Your task to perform on an android device: change the clock display to show seconds Image 0: 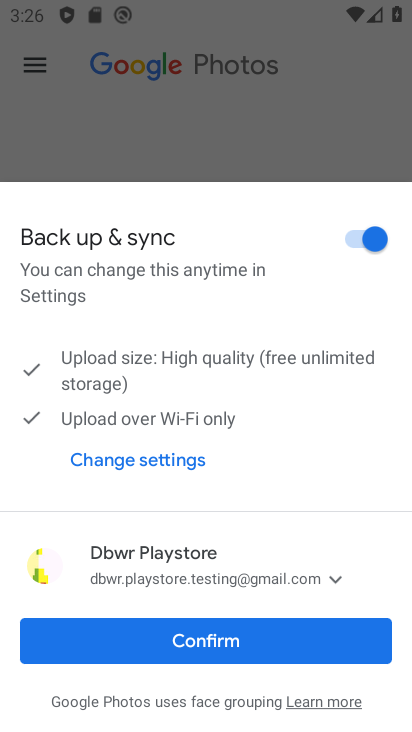
Step 0: press home button
Your task to perform on an android device: change the clock display to show seconds Image 1: 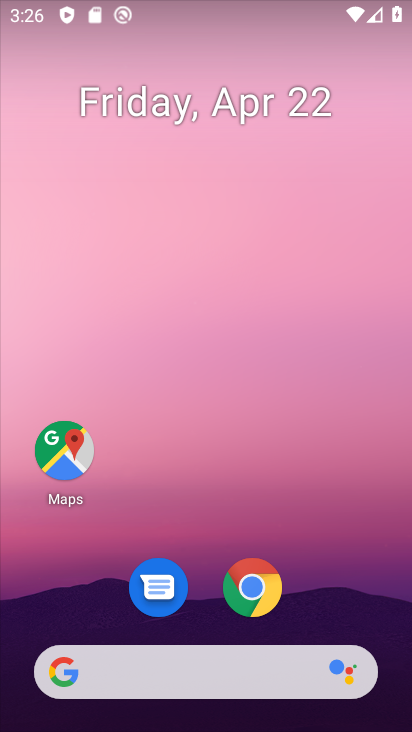
Step 1: drag from (181, 365) to (257, 0)
Your task to perform on an android device: change the clock display to show seconds Image 2: 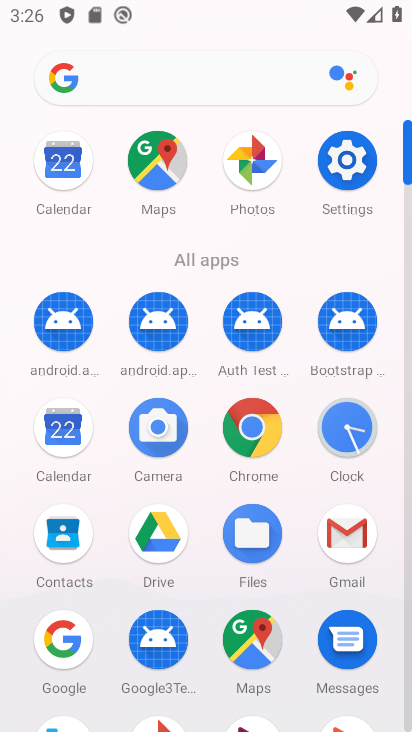
Step 2: click (348, 429)
Your task to perform on an android device: change the clock display to show seconds Image 3: 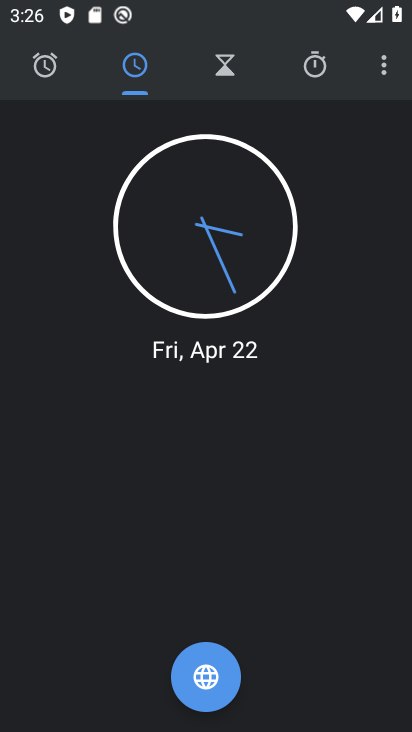
Step 3: click (386, 66)
Your task to perform on an android device: change the clock display to show seconds Image 4: 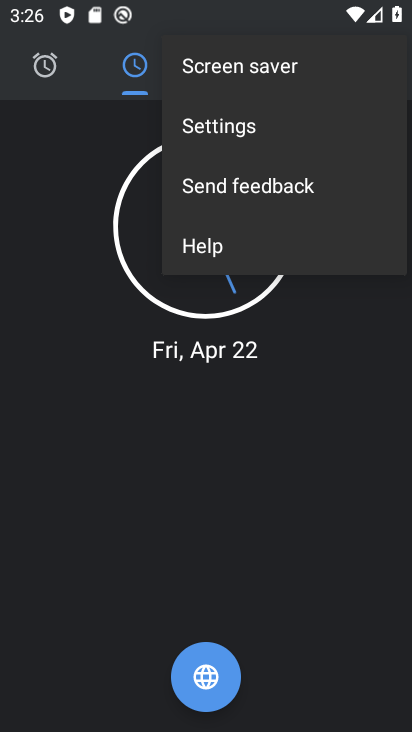
Step 4: click (244, 130)
Your task to perform on an android device: change the clock display to show seconds Image 5: 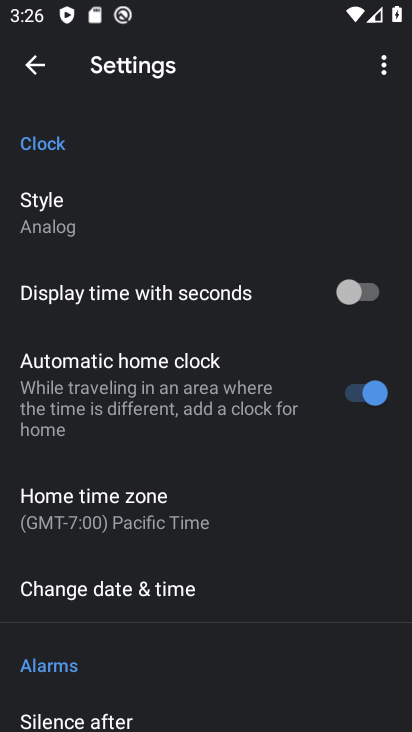
Step 5: click (360, 289)
Your task to perform on an android device: change the clock display to show seconds Image 6: 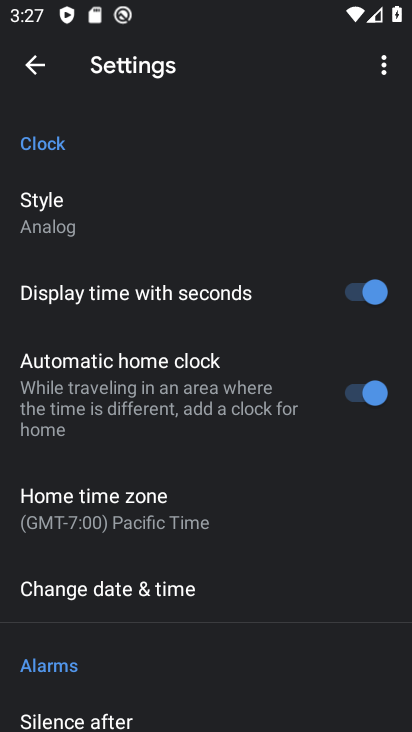
Step 6: task complete